Your task to perform on an android device: change the clock display to analog Image 0: 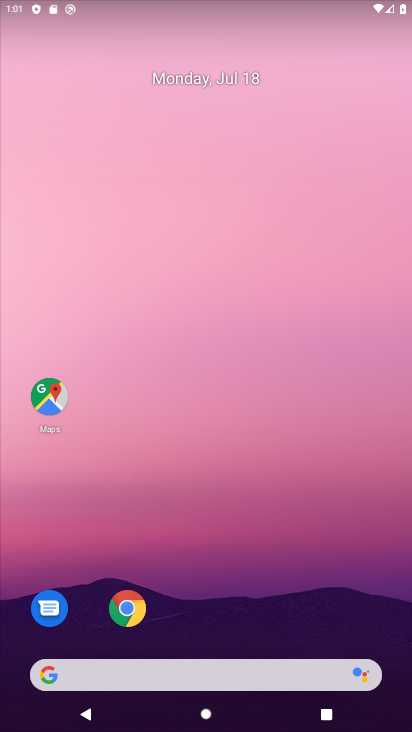
Step 0: drag from (387, 626) to (348, 190)
Your task to perform on an android device: change the clock display to analog Image 1: 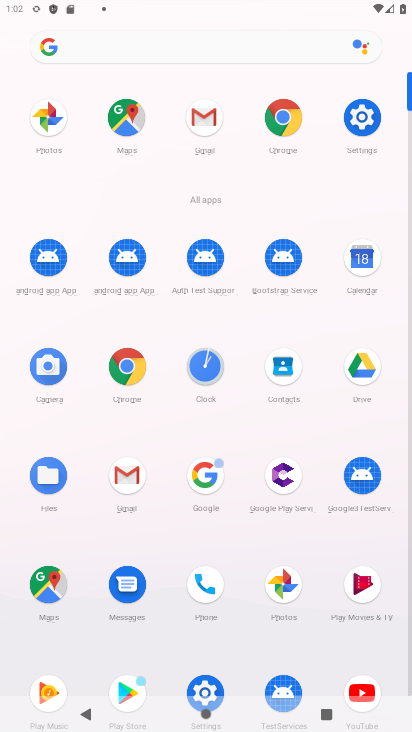
Step 1: click (203, 375)
Your task to perform on an android device: change the clock display to analog Image 2: 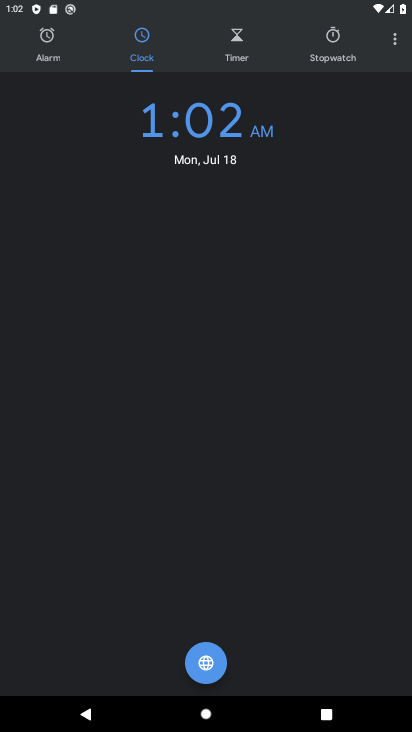
Step 2: click (394, 50)
Your task to perform on an android device: change the clock display to analog Image 3: 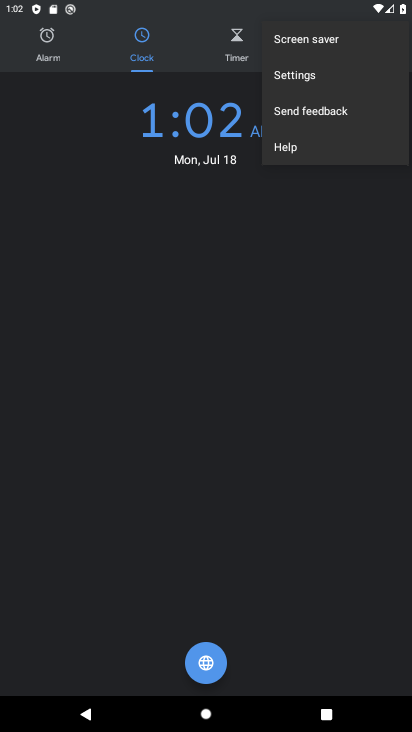
Step 3: click (364, 74)
Your task to perform on an android device: change the clock display to analog Image 4: 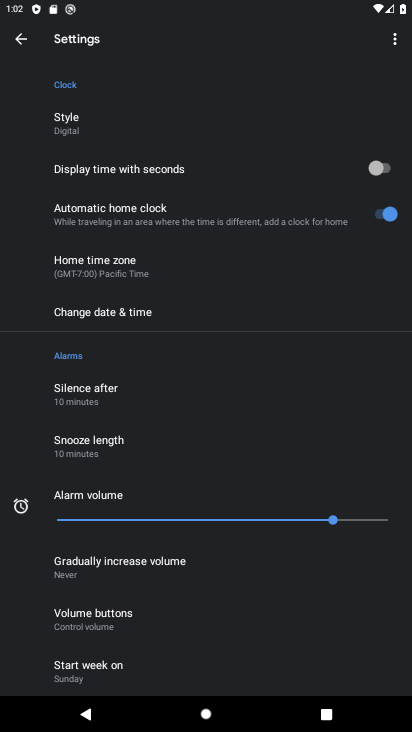
Step 4: click (225, 118)
Your task to perform on an android device: change the clock display to analog Image 5: 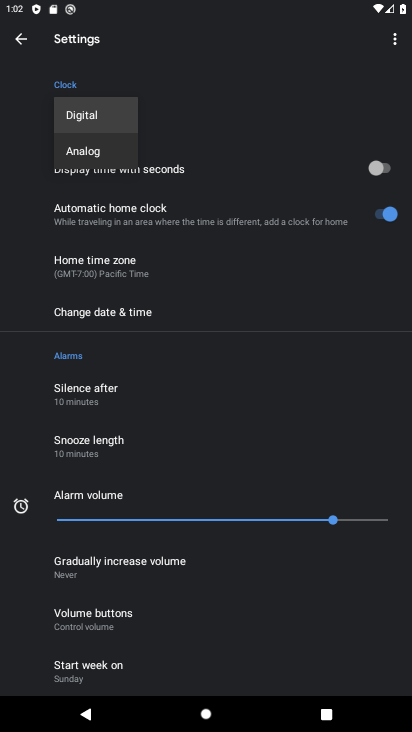
Step 5: click (120, 163)
Your task to perform on an android device: change the clock display to analog Image 6: 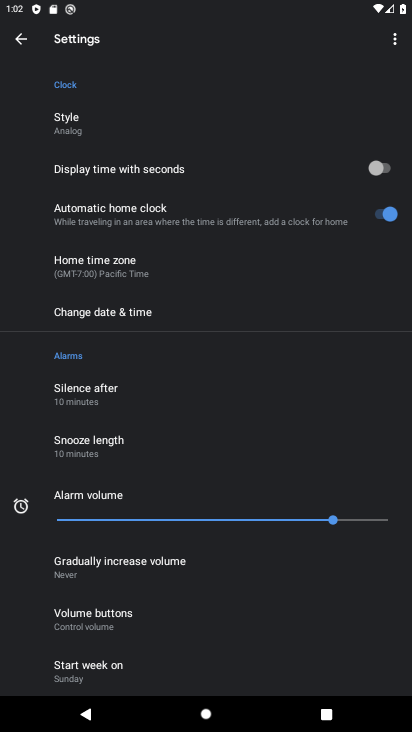
Step 6: task complete